Your task to perform on an android device: Open Maps and search for coffee Image 0: 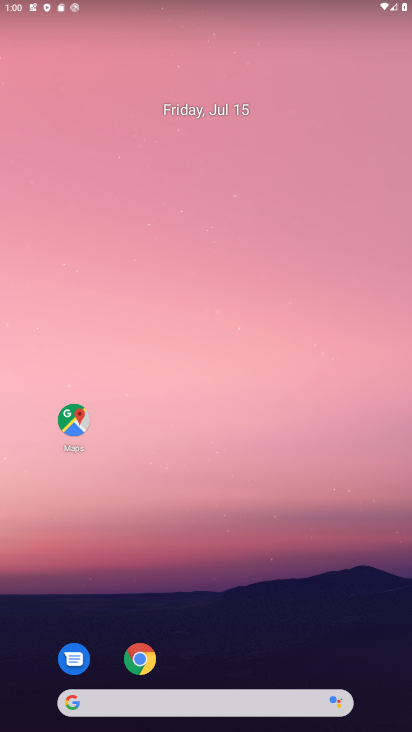
Step 0: click (74, 433)
Your task to perform on an android device: Open Maps and search for coffee Image 1: 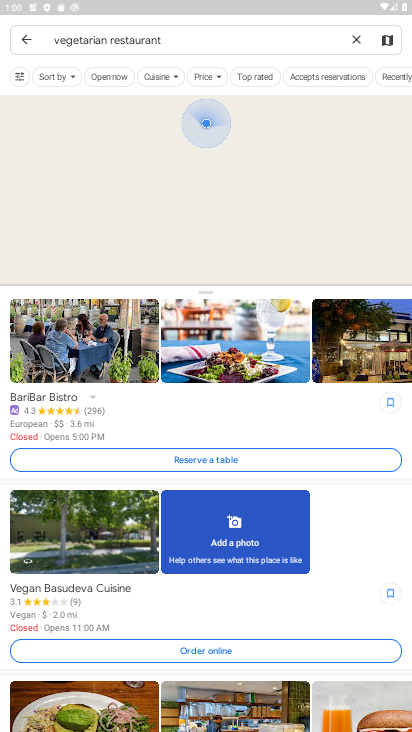
Step 1: click (211, 46)
Your task to perform on an android device: Open Maps and search for coffee Image 2: 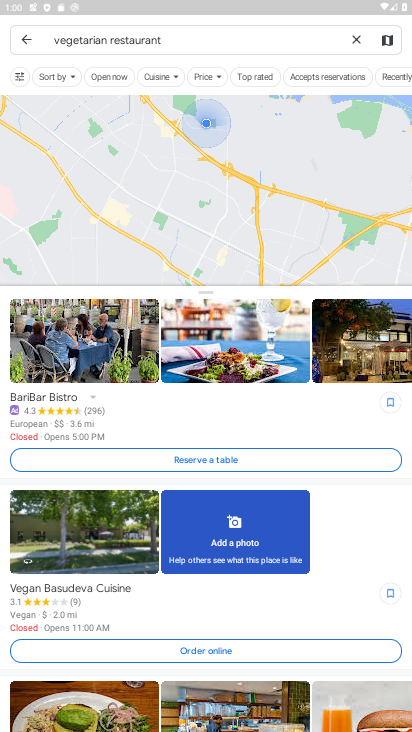
Step 2: click (357, 39)
Your task to perform on an android device: Open Maps and search for coffee Image 3: 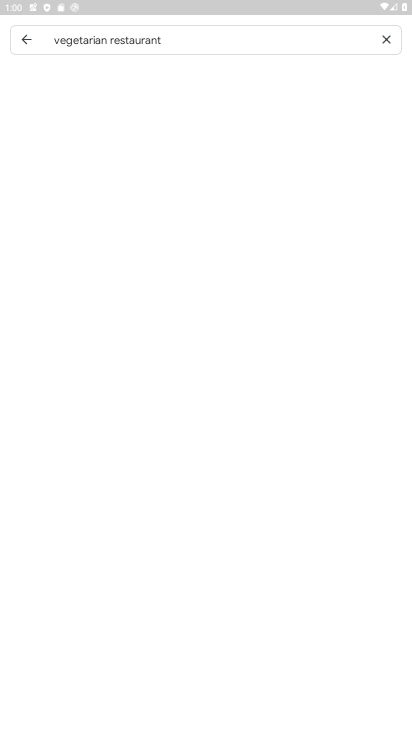
Step 3: click (280, 45)
Your task to perform on an android device: Open Maps and search for coffee Image 4: 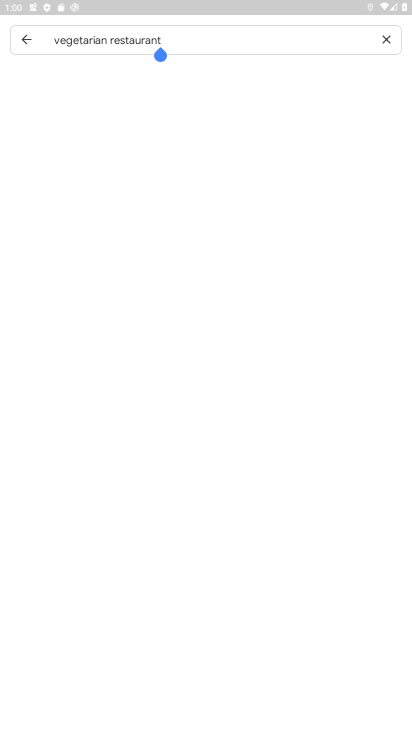
Step 4: click (380, 34)
Your task to perform on an android device: Open Maps and search for coffee Image 5: 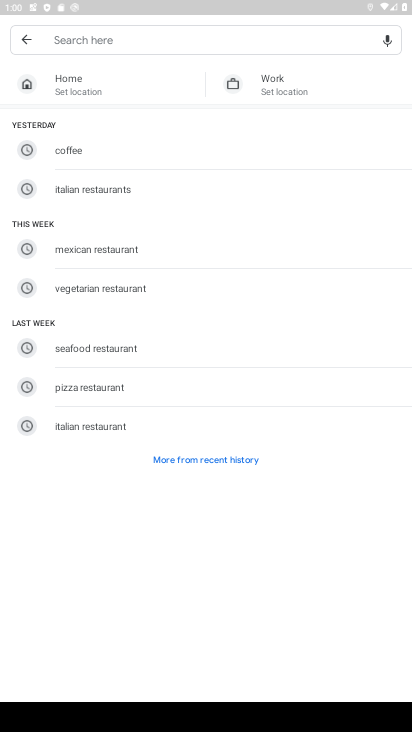
Step 5: click (260, 41)
Your task to perform on an android device: Open Maps and search for coffee Image 6: 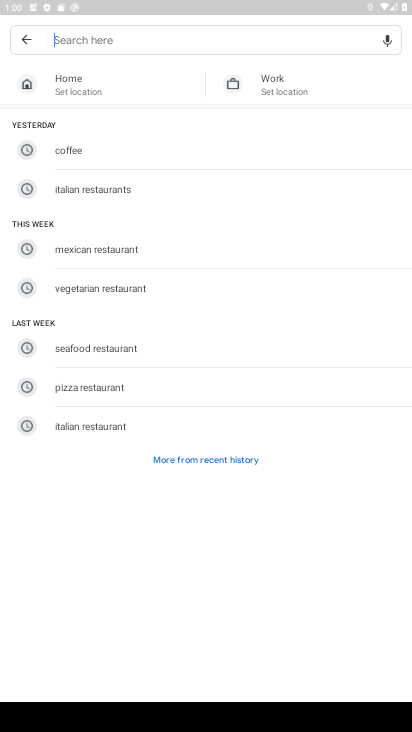
Step 6: type "coffee"
Your task to perform on an android device: Open Maps and search for coffee Image 7: 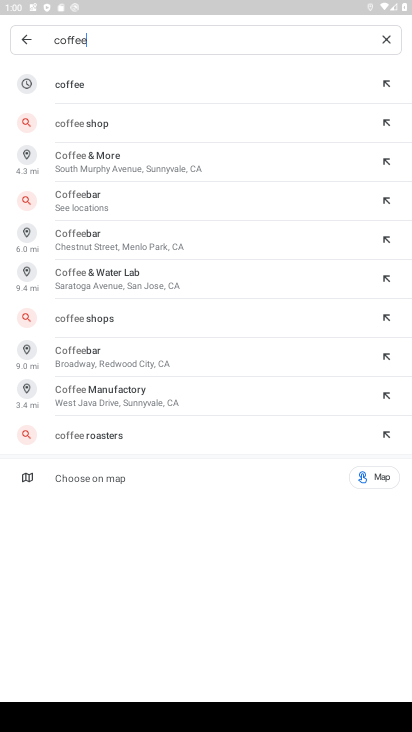
Step 7: click (94, 88)
Your task to perform on an android device: Open Maps and search for coffee Image 8: 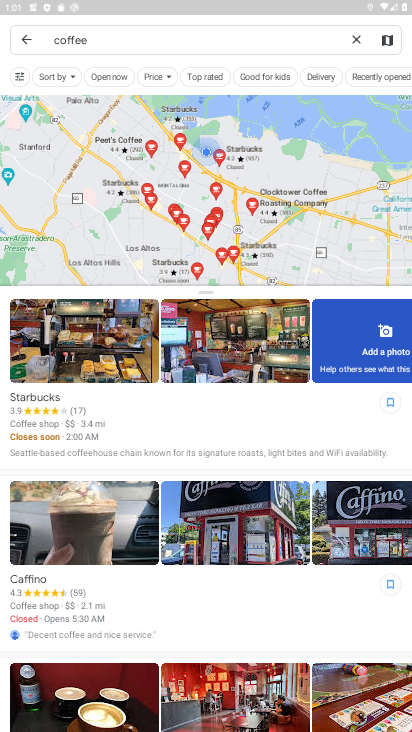
Step 8: task complete